Your task to perform on an android device: turn off notifications settings in the gmail app Image 0: 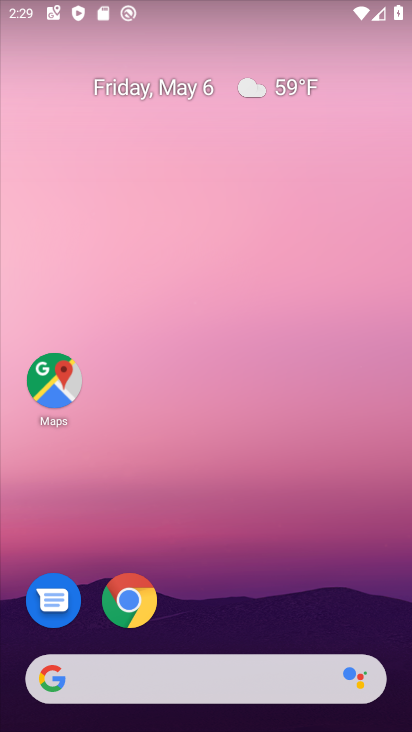
Step 0: drag from (203, 576) to (196, 56)
Your task to perform on an android device: turn off notifications settings in the gmail app Image 1: 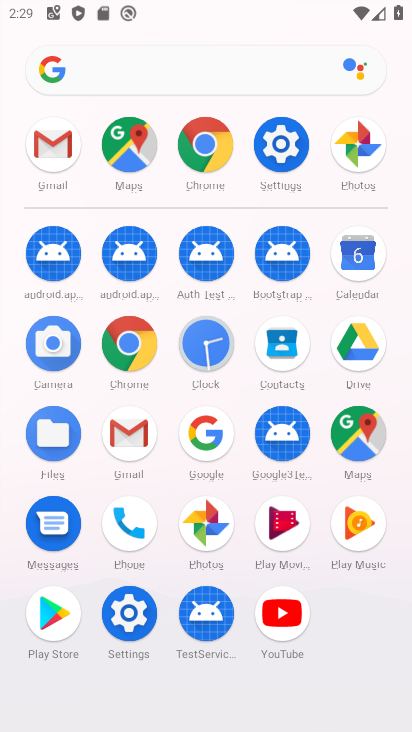
Step 1: click (48, 145)
Your task to perform on an android device: turn off notifications settings in the gmail app Image 2: 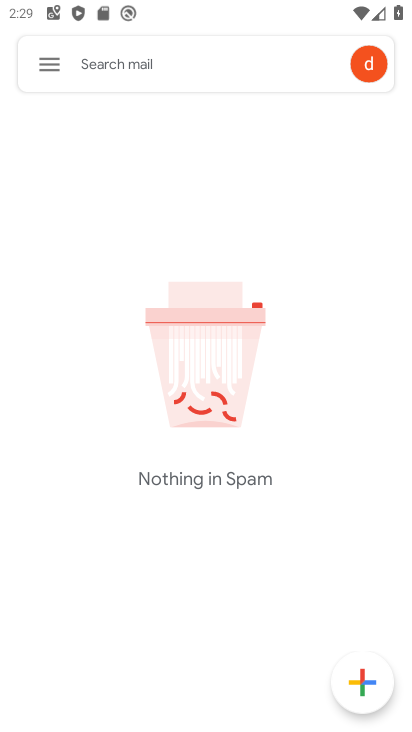
Step 2: click (52, 66)
Your task to perform on an android device: turn off notifications settings in the gmail app Image 3: 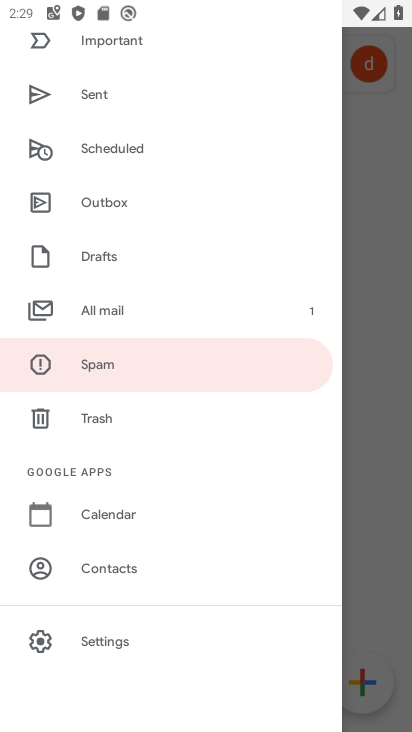
Step 3: click (86, 635)
Your task to perform on an android device: turn off notifications settings in the gmail app Image 4: 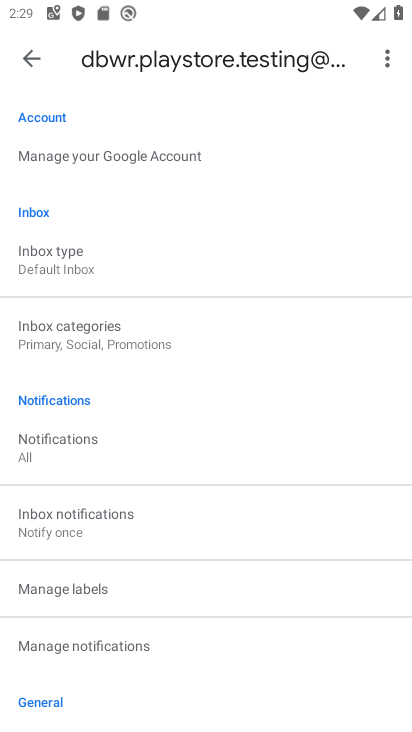
Step 4: click (73, 454)
Your task to perform on an android device: turn off notifications settings in the gmail app Image 5: 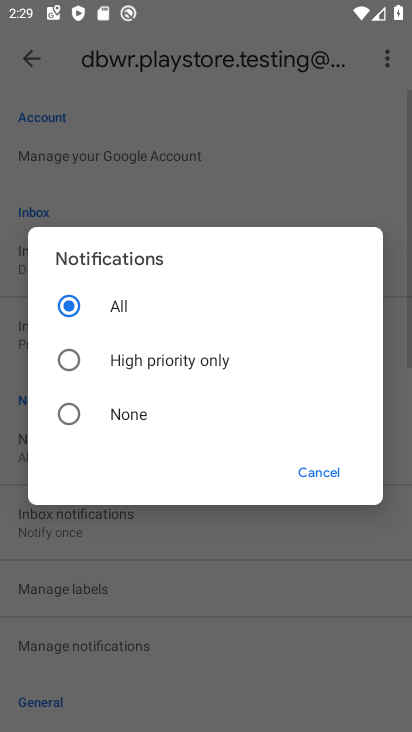
Step 5: click (66, 414)
Your task to perform on an android device: turn off notifications settings in the gmail app Image 6: 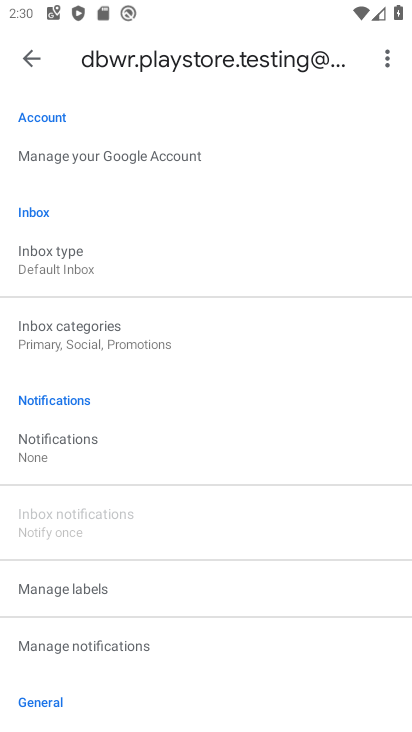
Step 6: task complete